Your task to perform on an android device: check the backup settings in the google photos Image 0: 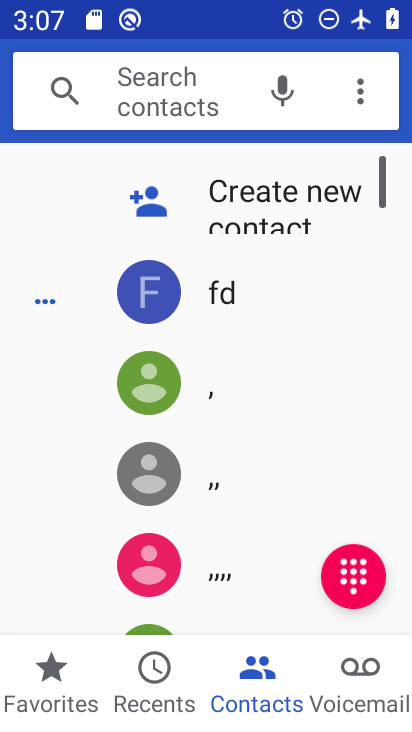
Step 0: press home button
Your task to perform on an android device: check the backup settings in the google photos Image 1: 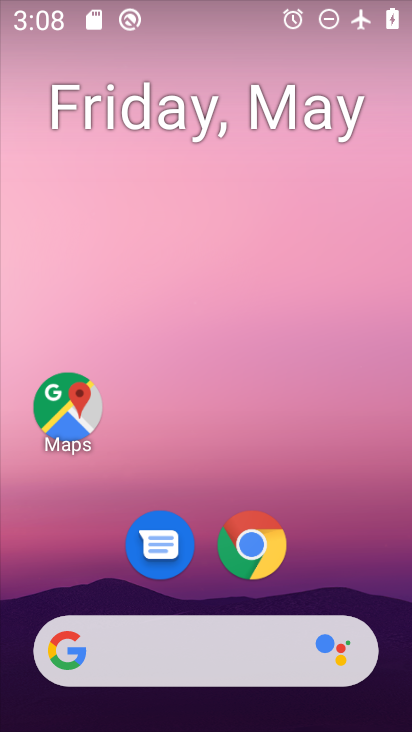
Step 1: drag from (311, 553) to (289, 160)
Your task to perform on an android device: check the backup settings in the google photos Image 2: 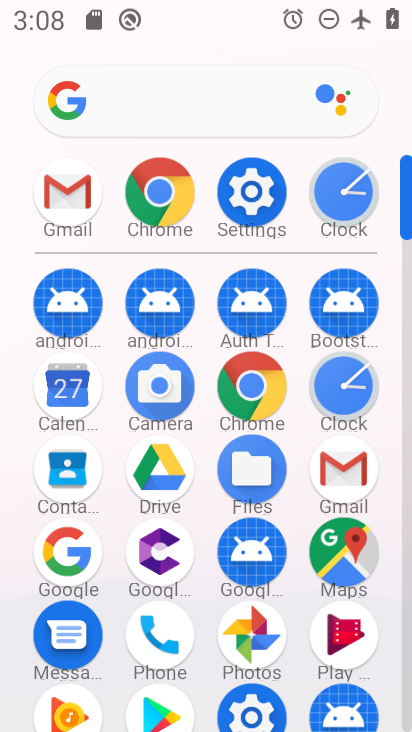
Step 2: click (244, 633)
Your task to perform on an android device: check the backup settings in the google photos Image 3: 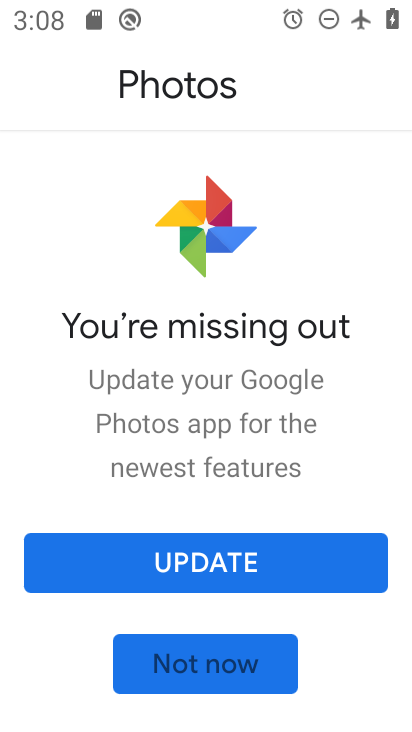
Step 3: click (209, 664)
Your task to perform on an android device: check the backup settings in the google photos Image 4: 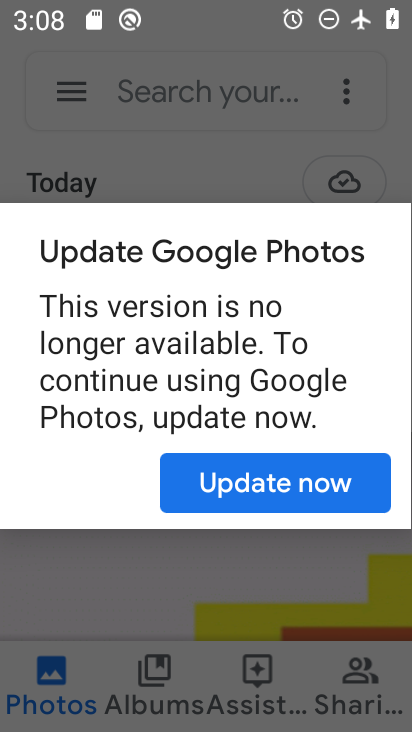
Step 4: click (293, 474)
Your task to perform on an android device: check the backup settings in the google photos Image 5: 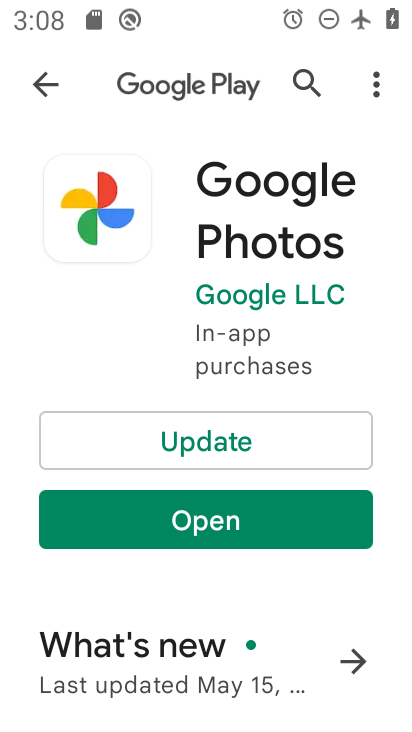
Step 5: press back button
Your task to perform on an android device: check the backup settings in the google photos Image 6: 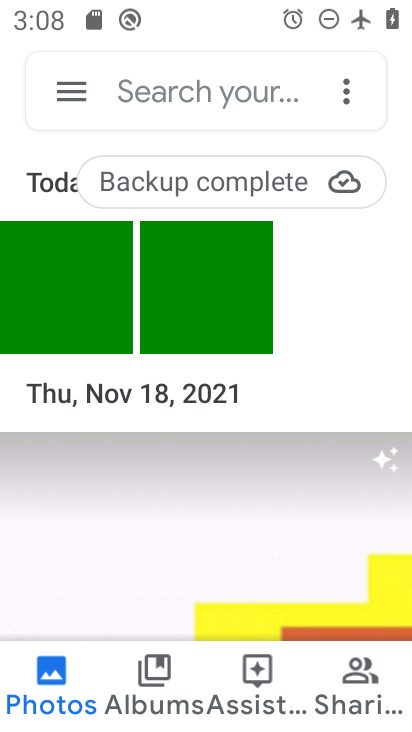
Step 6: click (66, 92)
Your task to perform on an android device: check the backup settings in the google photos Image 7: 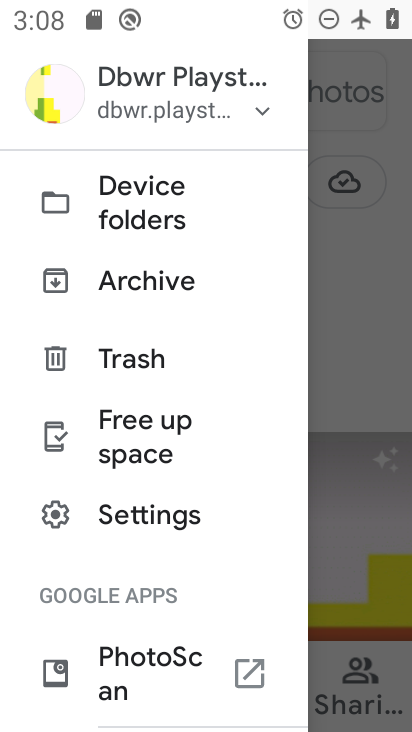
Step 7: click (162, 515)
Your task to perform on an android device: check the backup settings in the google photos Image 8: 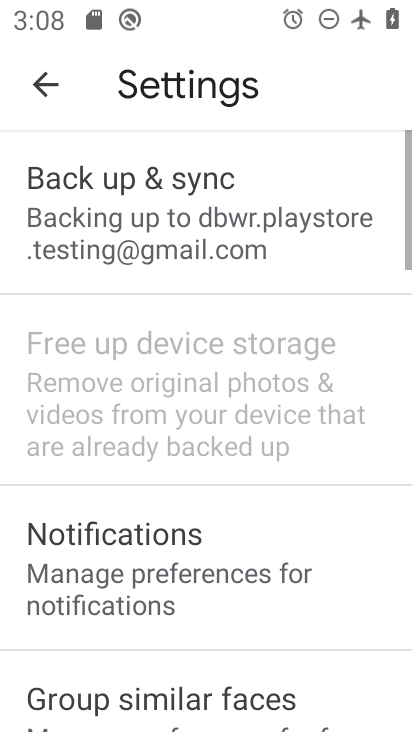
Step 8: click (158, 216)
Your task to perform on an android device: check the backup settings in the google photos Image 9: 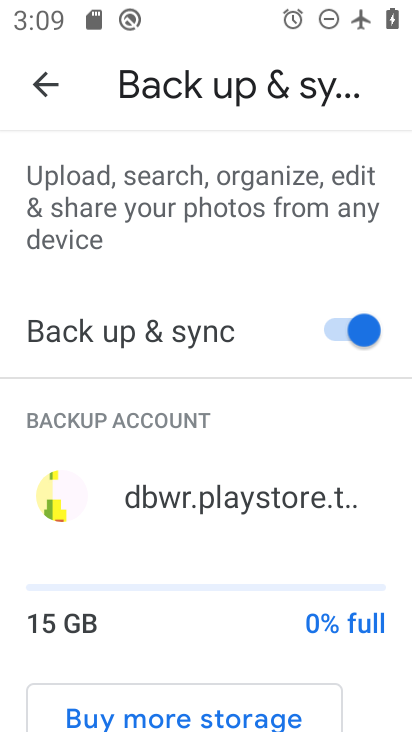
Step 9: task complete